Your task to perform on an android device: Open network settings Image 0: 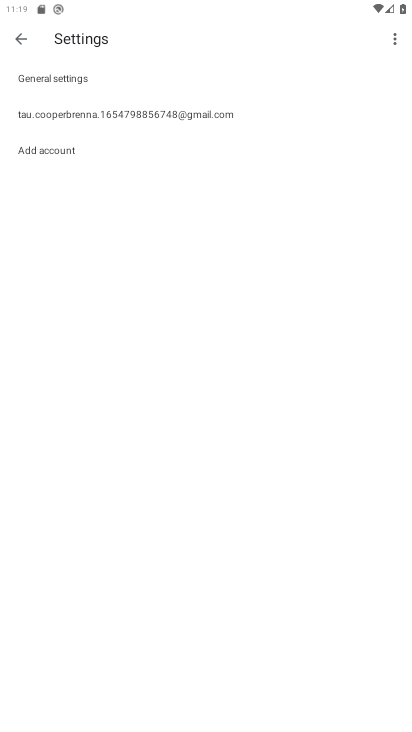
Step 0: click (175, 696)
Your task to perform on an android device: Open network settings Image 1: 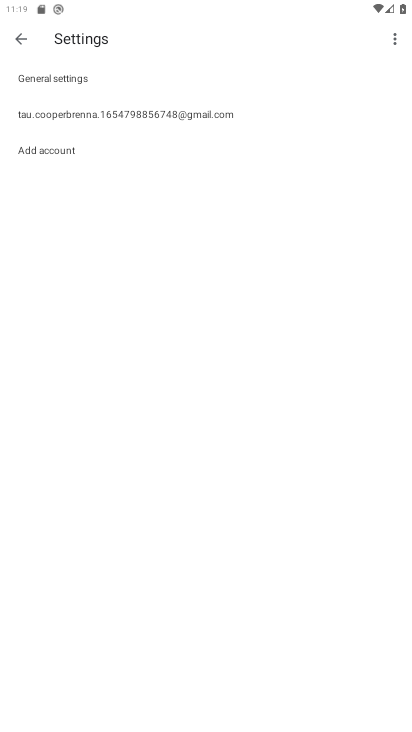
Step 1: click (15, 38)
Your task to perform on an android device: Open network settings Image 2: 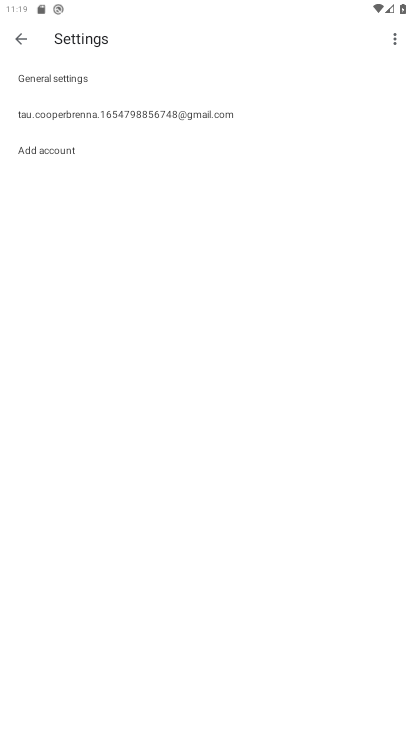
Step 2: click (19, 41)
Your task to perform on an android device: Open network settings Image 3: 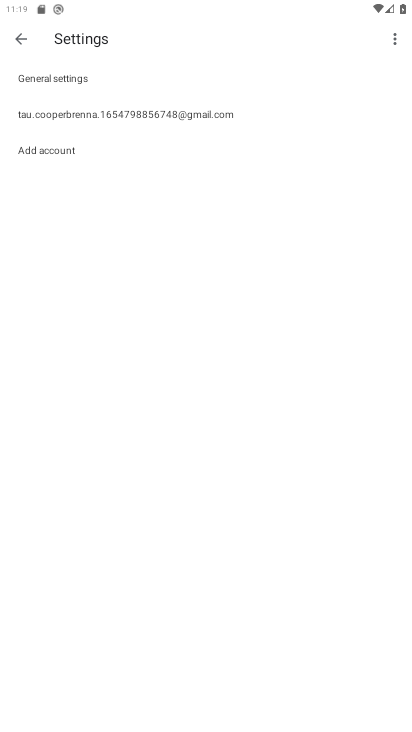
Step 3: click (21, 37)
Your task to perform on an android device: Open network settings Image 4: 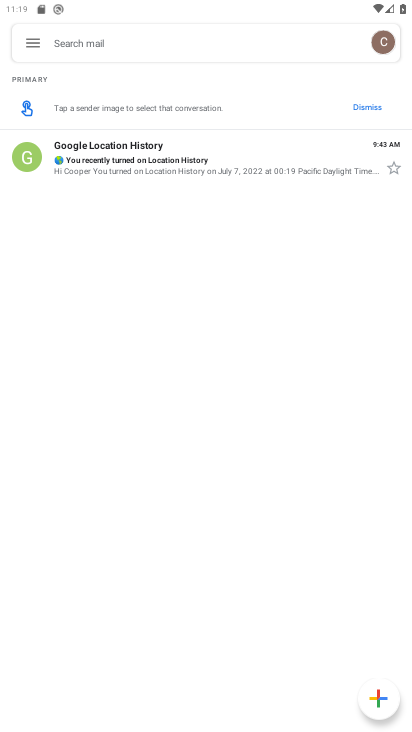
Step 4: press home button
Your task to perform on an android device: Open network settings Image 5: 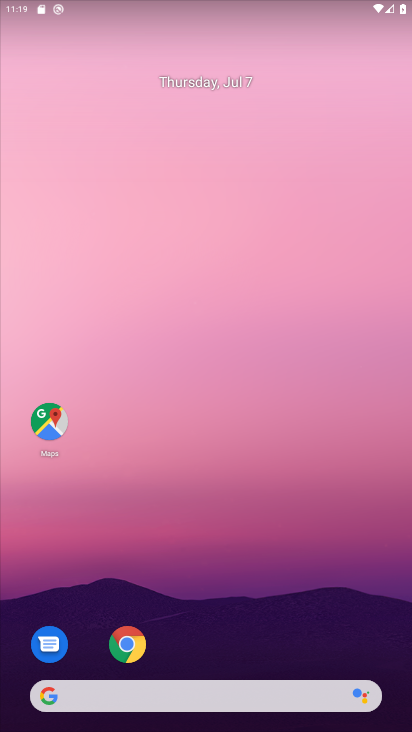
Step 5: drag from (15, 686) to (266, 80)
Your task to perform on an android device: Open network settings Image 6: 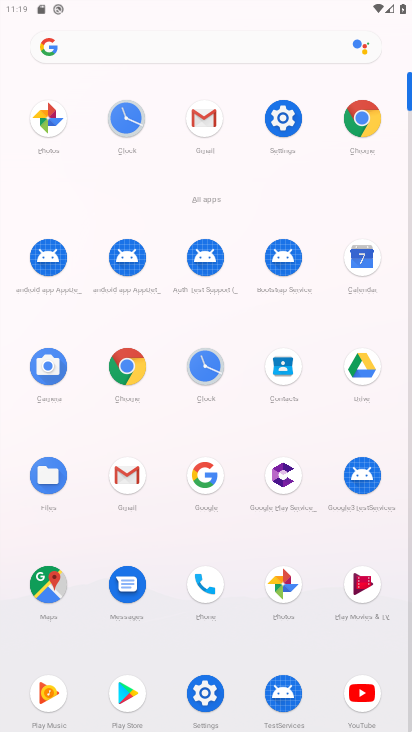
Step 6: click (208, 699)
Your task to perform on an android device: Open network settings Image 7: 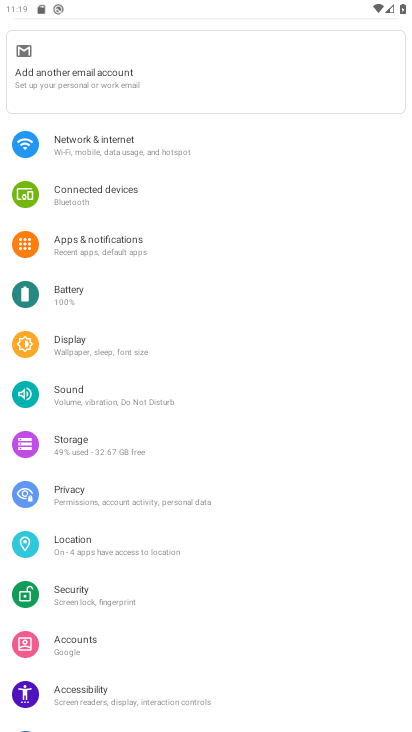
Step 7: click (90, 136)
Your task to perform on an android device: Open network settings Image 8: 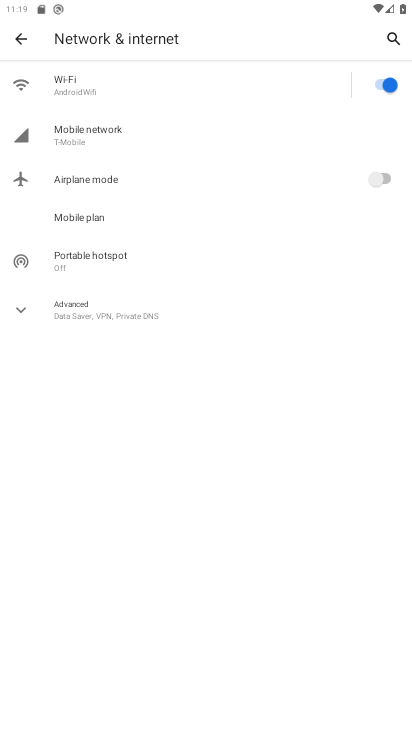
Step 8: task complete